Your task to perform on an android device: Go to Google maps Image 0: 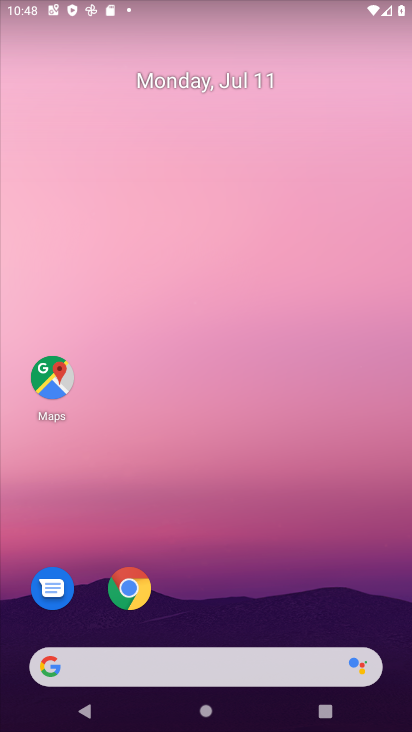
Step 0: click (60, 376)
Your task to perform on an android device: Go to Google maps Image 1: 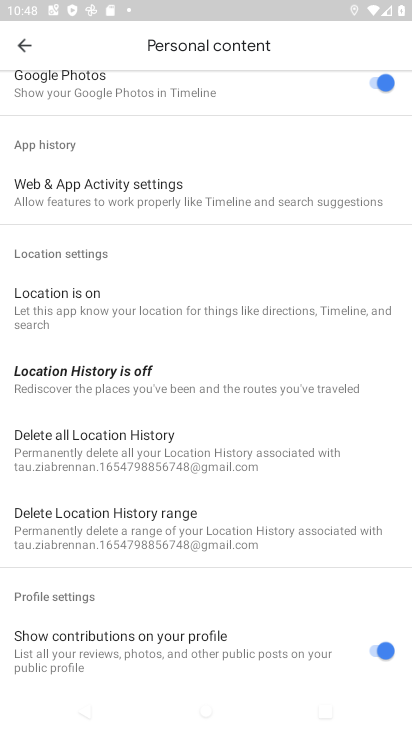
Step 1: click (31, 50)
Your task to perform on an android device: Go to Google maps Image 2: 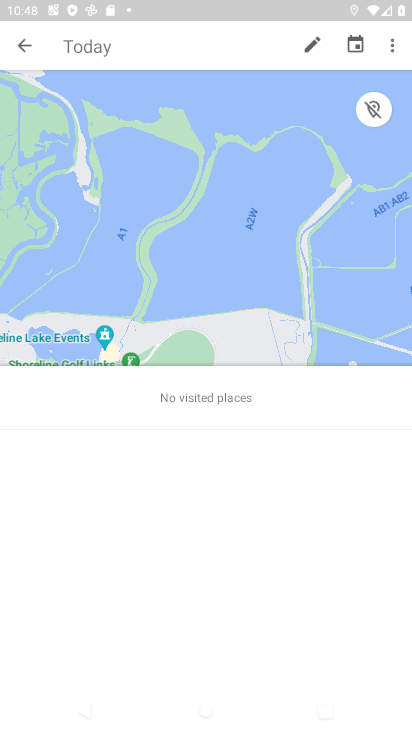
Step 2: click (30, 47)
Your task to perform on an android device: Go to Google maps Image 3: 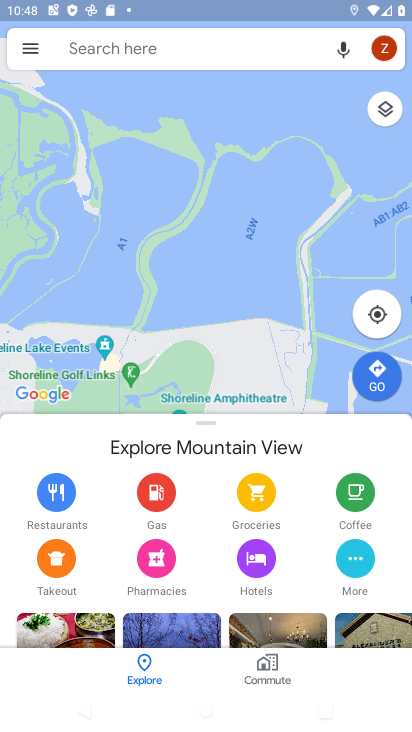
Step 3: task complete